Your task to perform on an android device: Find coffee shops on Maps Image 0: 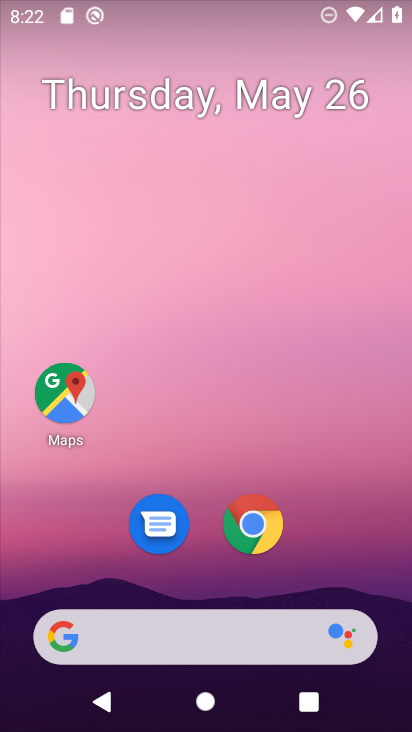
Step 0: click (75, 394)
Your task to perform on an android device: Find coffee shops on Maps Image 1: 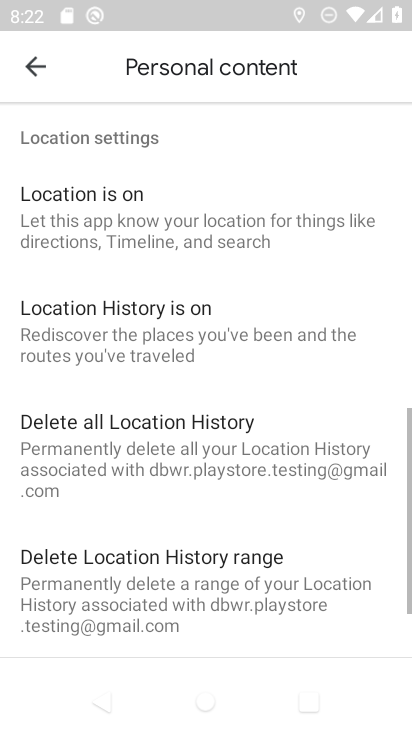
Step 1: click (31, 58)
Your task to perform on an android device: Find coffee shops on Maps Image 2: 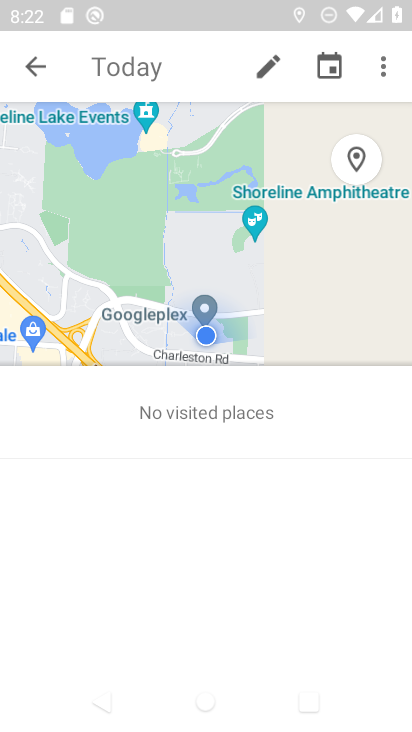
Step 2: click (31, 59)
Your task to perform on an android device: Find coffee shops on Maps Image 3: 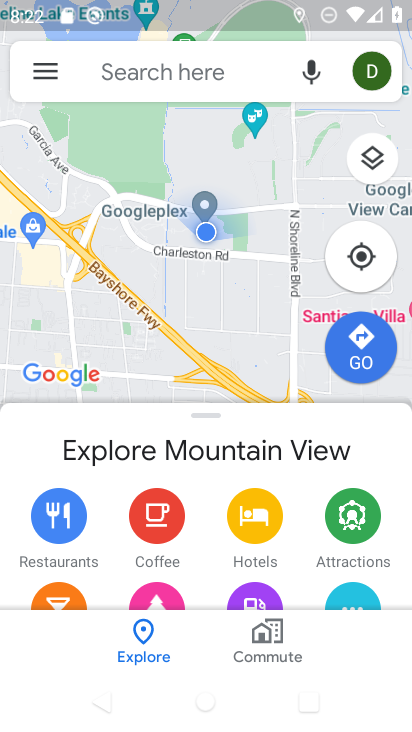
Step 3: click (116, 64)
Your task to perform on an android device: Find coffee shops on Maps Image 4: 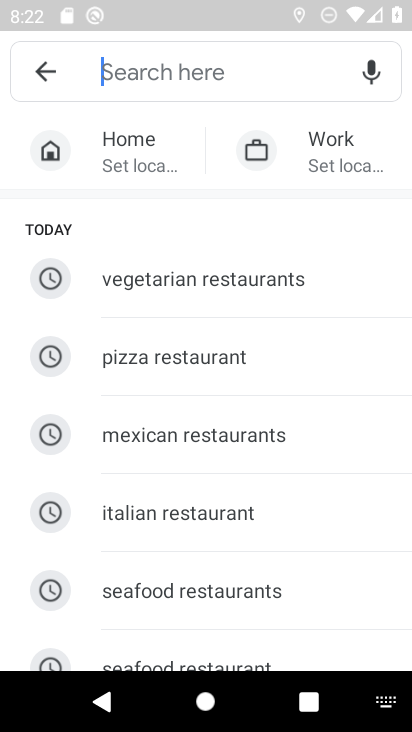
Step 4: click (171, 521)
Your task to perform on an android device: Find coffee shops on Maps Image 5: 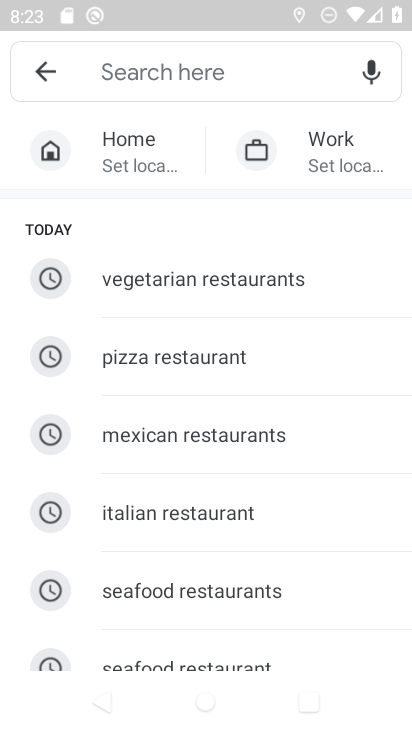
Step 5: click (225, 59)
Your task to perform on an android device: Find coffee shops on Maps Image 6: 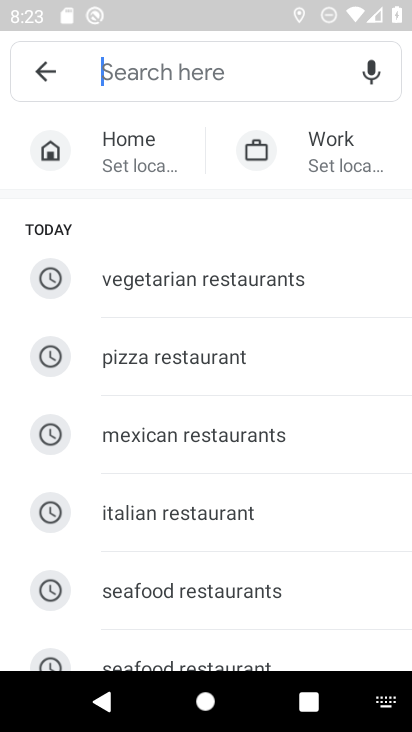
Step 6: type "coffee shop"
Your task to perform on an android device: Find coffee shops on Maps Image 7: 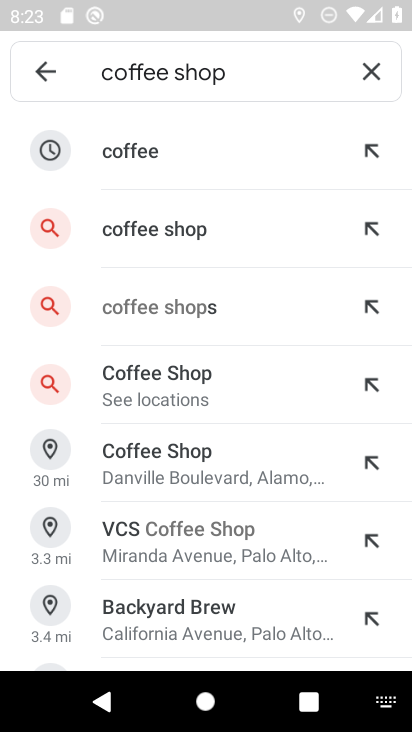
Step 7: click (122, 218)
Your task to perform on an android device: Find coffee shops on Maps Image 8: 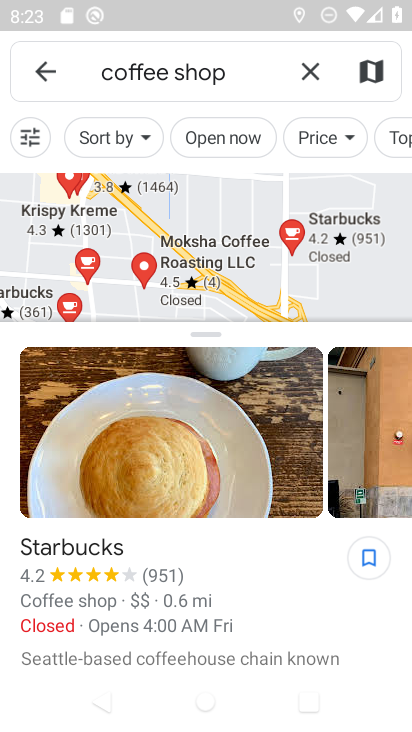
Step 8: task complete